Your task to perform on an android device: turn on showing notifications on the lock screen Image 0: 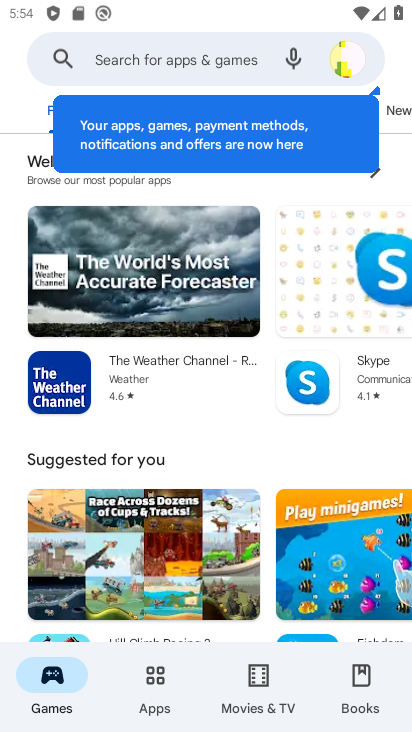
Step 0: press home button
Your task to perform on an android device: turn on showing notifications on the lock screen Image 1: 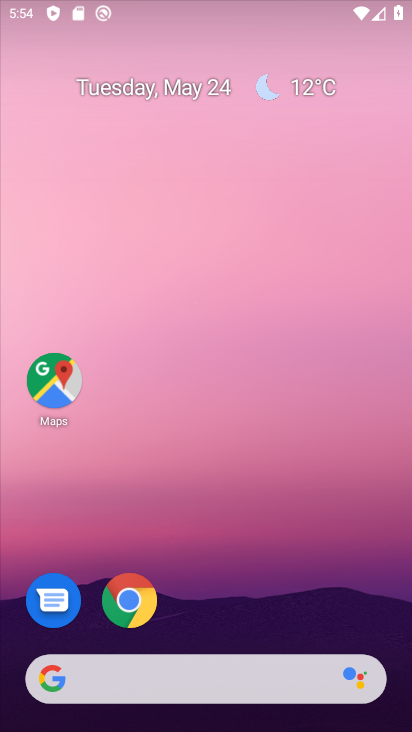
Step 1: drag from (299, 619) to (411, 129)
Your task to perform on an android device: turn on showing notifications on the lock screen Image 2: 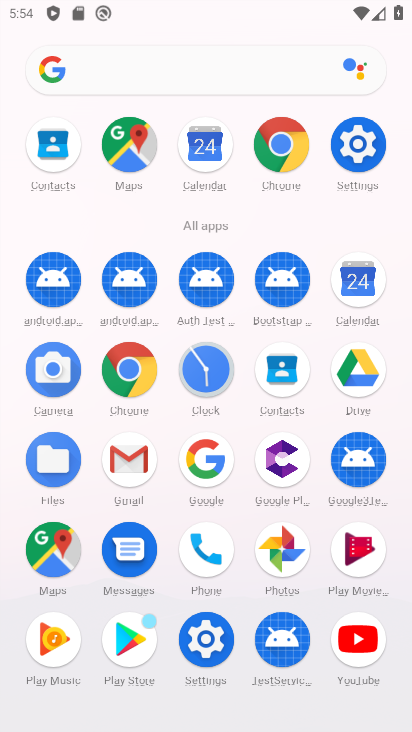
Step 2: click (356, 154)
Your task to perform on an android device: turn on showing notifications on the lock screen Image 3: 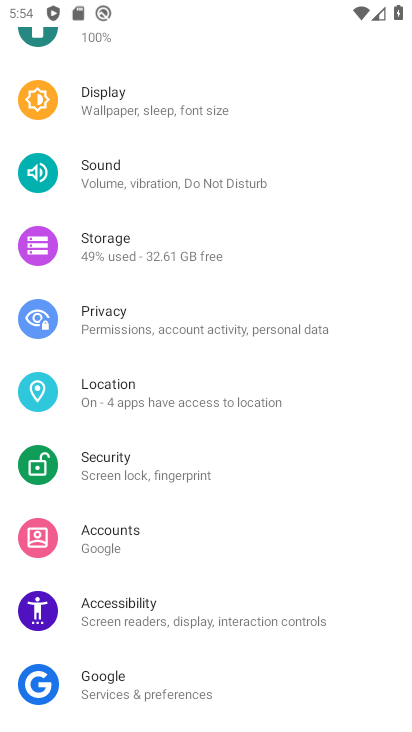
Step 3: drag from (256, 244) to (257, 730)
Your task to perform on an android device: turn on showing notifications on the lock screen Image 4: 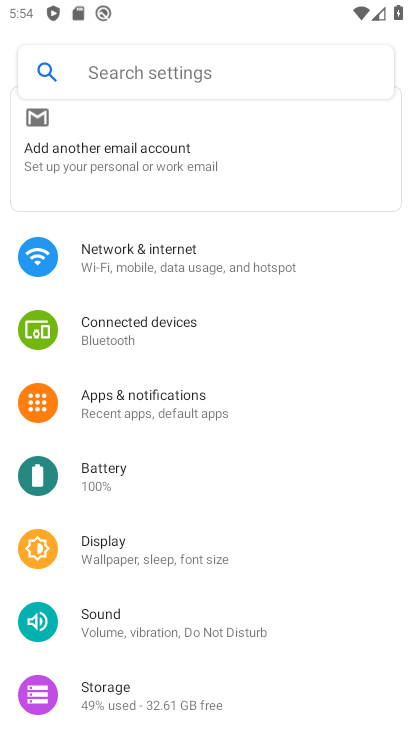
Step 4: click (151, 408)
Your task to perform on an android device: turn on showing notifications on the lock screen Image 5: 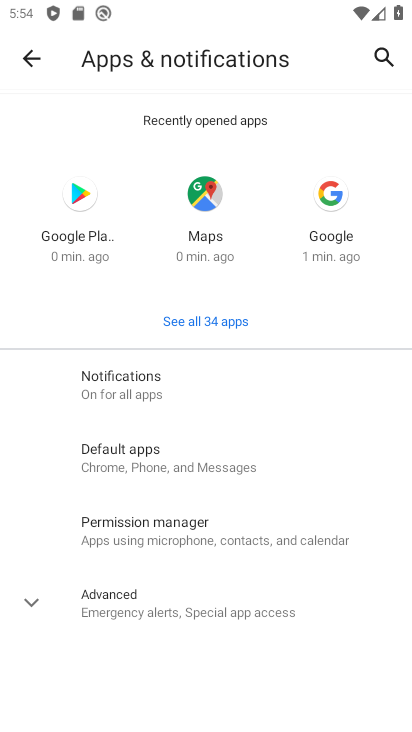
Step 5: click (181, 390)
Your task to perform on an android device: turn on showing notifications on the lock screen Image 6: 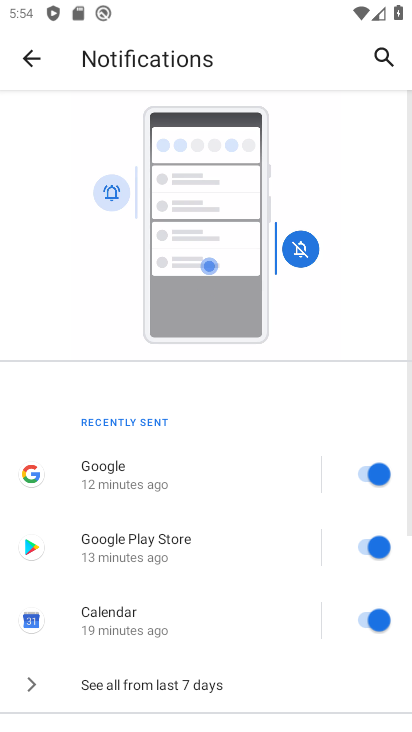
Step 6: drag from (282, 660) to (275, 70)
Your task to perform on an android device: turn on showing notifications on the lock screen Image 7: 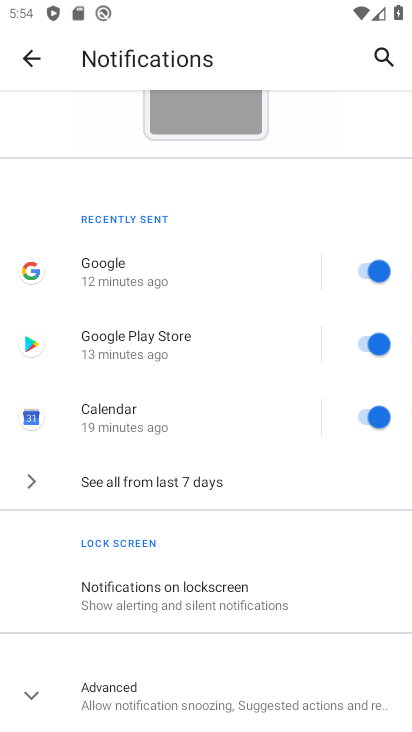
Step 7: click (153, 606)
Your task to perform on an android device: turn on showing notifications on the lock screen Image 8: 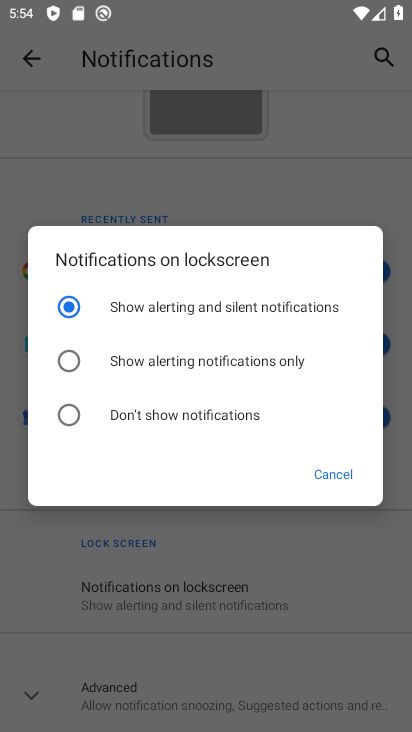
Step 8: task complete